Your task to perform on an android device: Go to wifi settings Image 0: 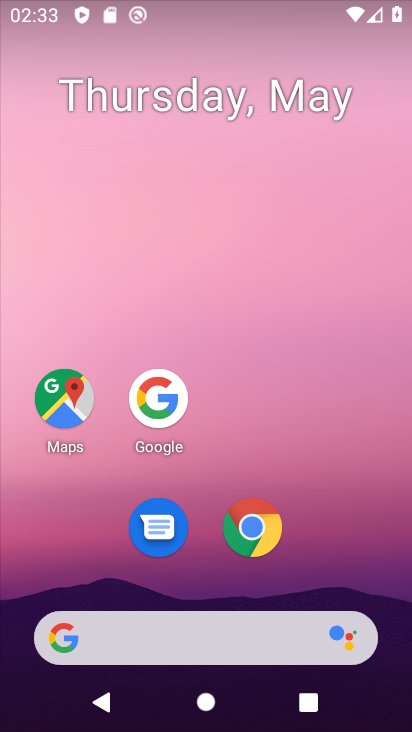
Step 0: drag from (209, 500) to (236, 156)
Your task to perform on an android device: Go to wifi settings Image 1: 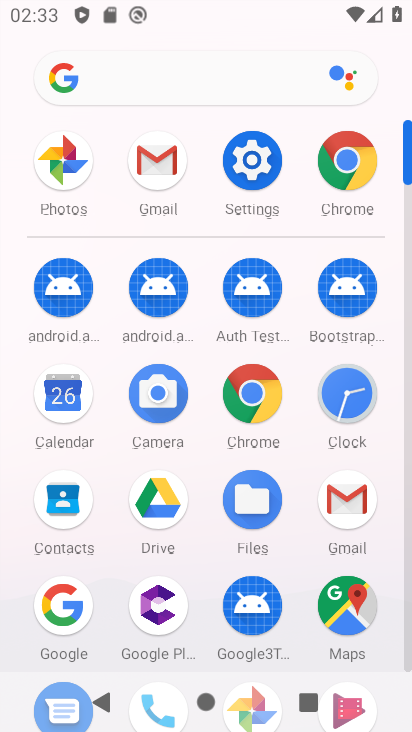
Step 1: drag from (215, 530) to (215, 244)
Your task to perform on an android device: Go to wifi settings Image 2: 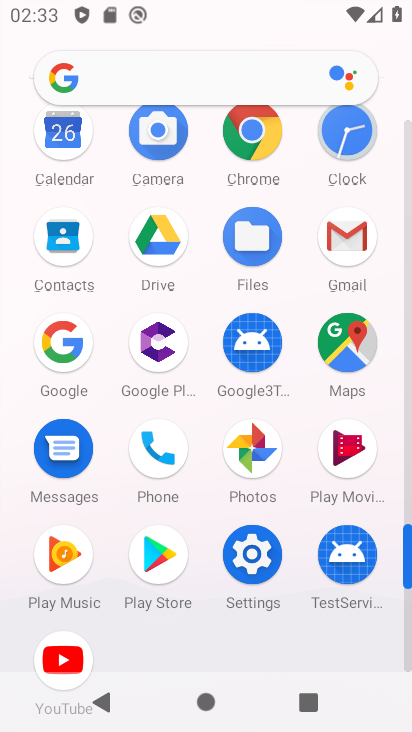
Step 2: click (261, 549)
Your task to perform on an android device: Go to wifi settings Image 3: 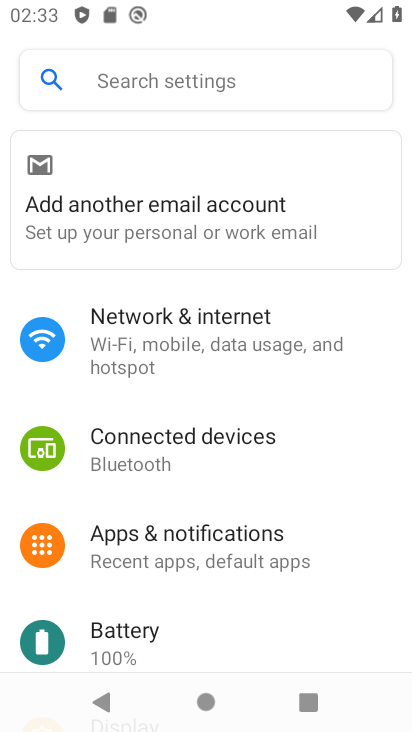
Step 3: click (211, 356)
Your task to perform on an android device: Go to wifi settings Image 4: 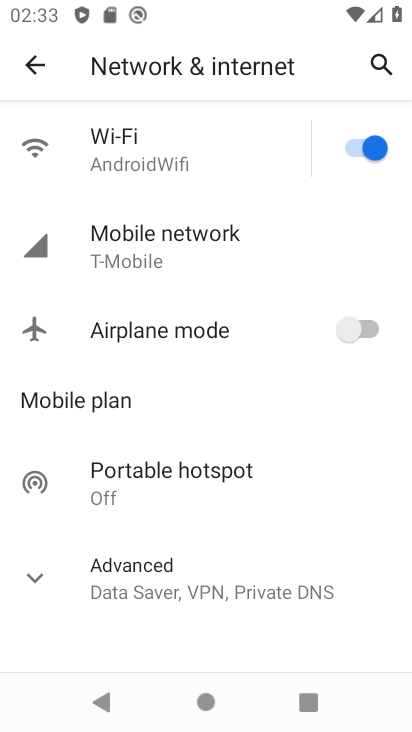
Step 4: drag from (241, 554) to (273, 321)
Your task to perform on an android device: Go to wifi settings Image 5: 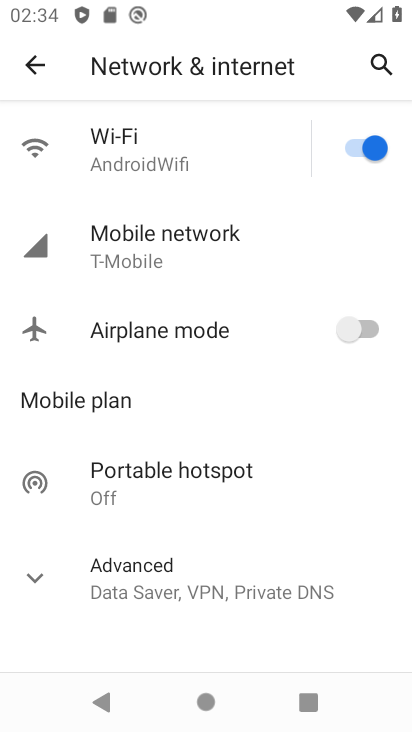
Step 5: click (204, 154)
Your task to perform on an android device: Go to wifi settings Image 6: 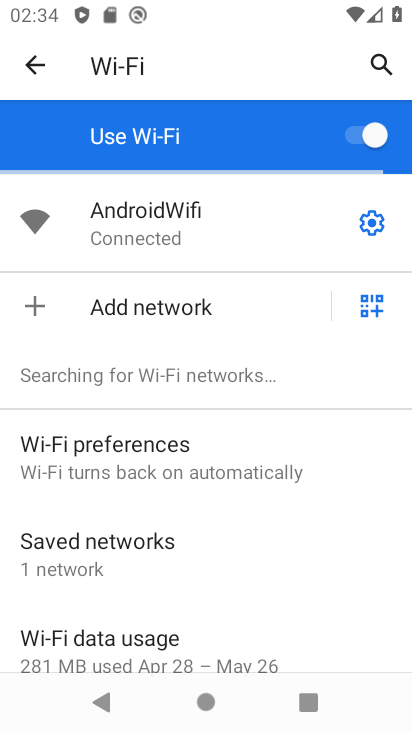
Step 6: drag from (274, 516) to (277, 245)
Your task to perform on an android device: Go to wifi settings Image 7: 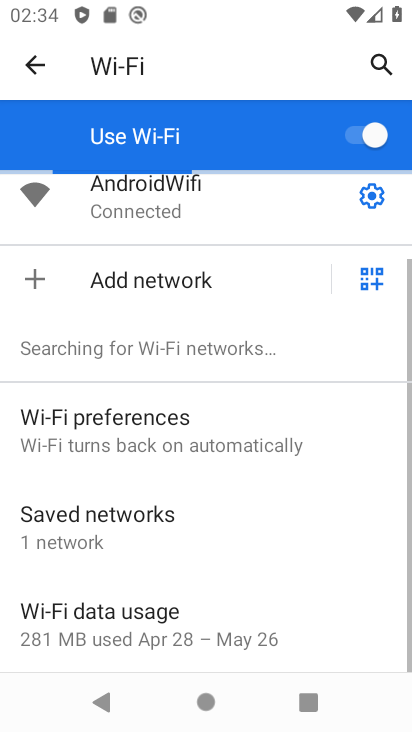
Step 7: drag from (222, 345) to (322, 711)
Your task to perform on an android device: Go to wifi settings Image 8: 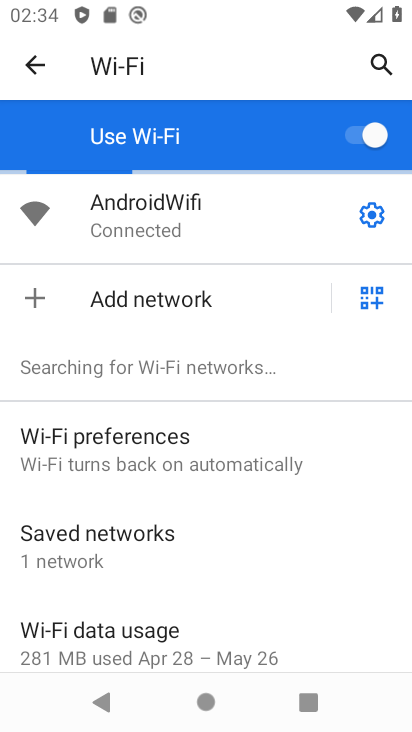
Step 8: click (381, 217)
Your task to perform on an android device: Go to wifi settings Image 9: 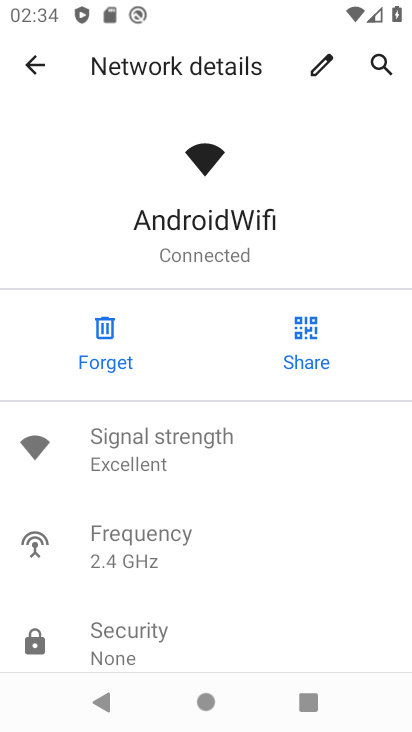
Step 9: task complete